Your task to perform on an android device: check the backup settings in the google photos Image 0: 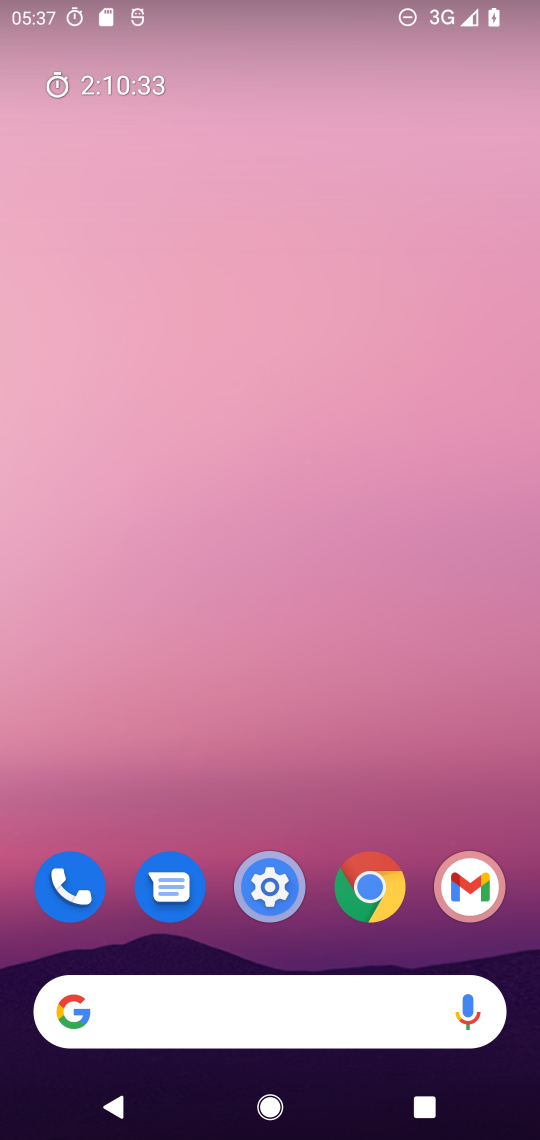
Step 0: press home button
Your task to perform on an android device: check the backup settings in the google photos Image 1: 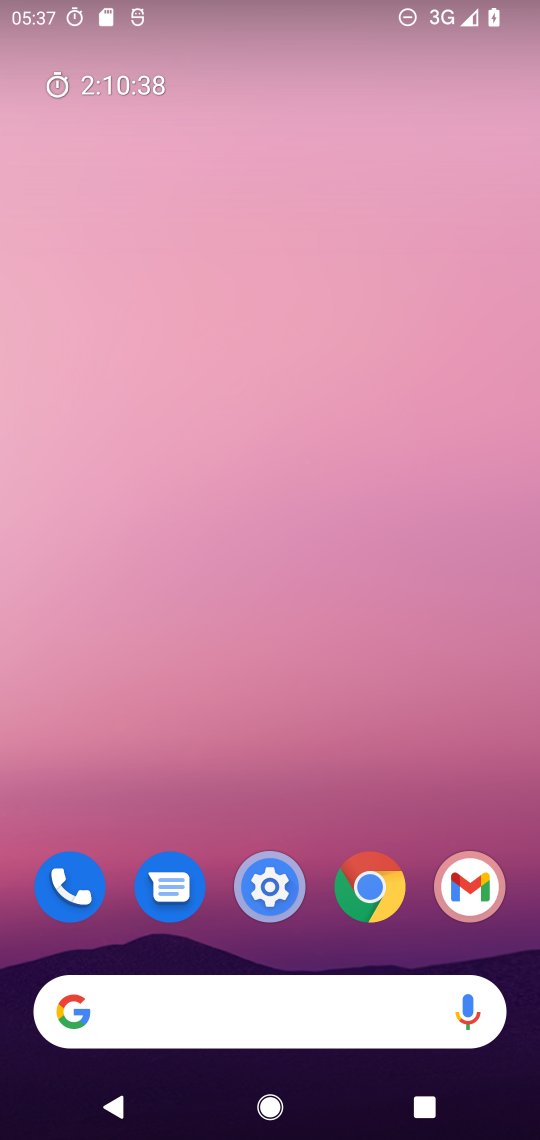
Step 1: drag from (414, 799) to (461, 309)
Your task to perform on an android device: check the backup settings in the google photos Image 2: 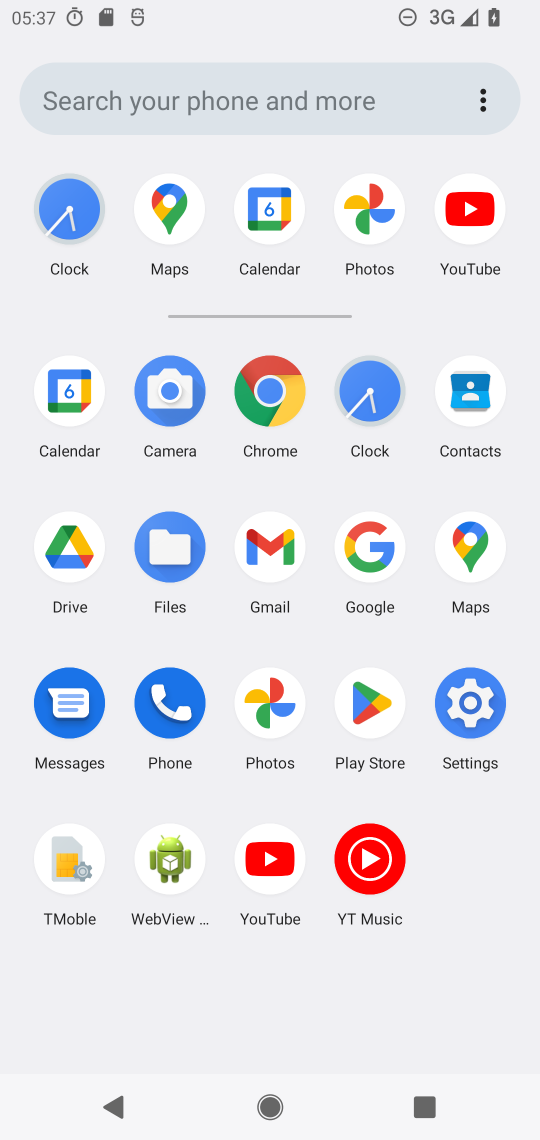
Step 2: click (260, 714)
Your task to perform on an android device: check the backup settings in the google photos Image 3: 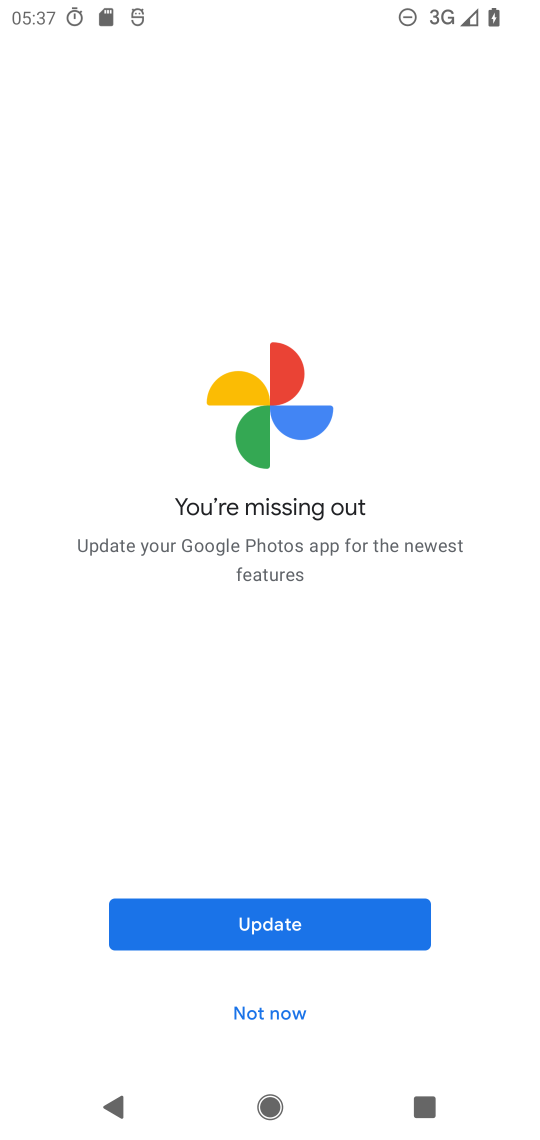
Step 3: click (269, 1009)
Your task to perform on an android device: check the backup settings in the google photos Image 4: 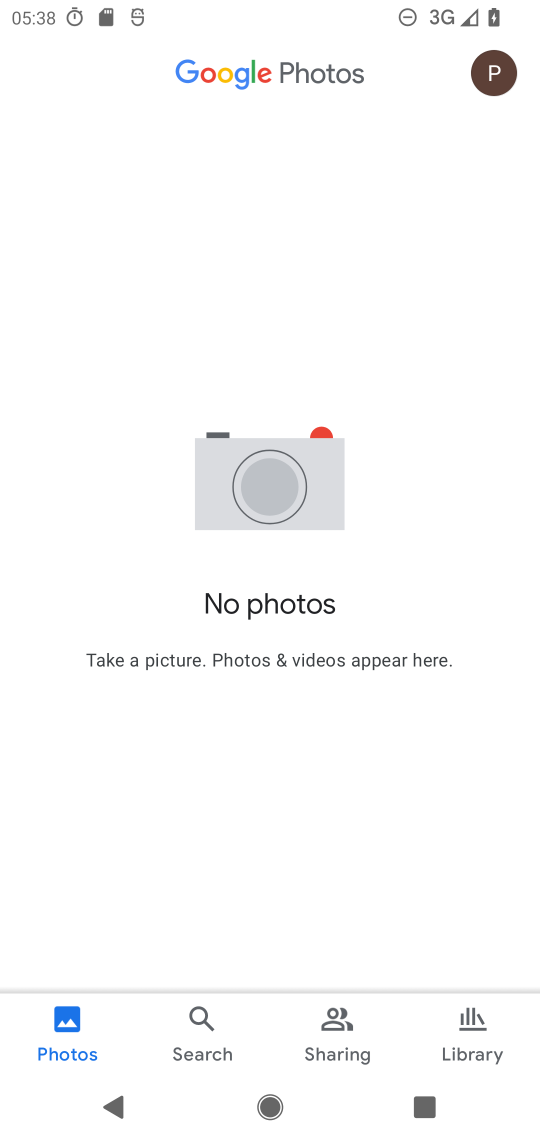
Step 4: click (491, 64)
Your task to perform on an android device: check the backup settings in the google photos Image 5: 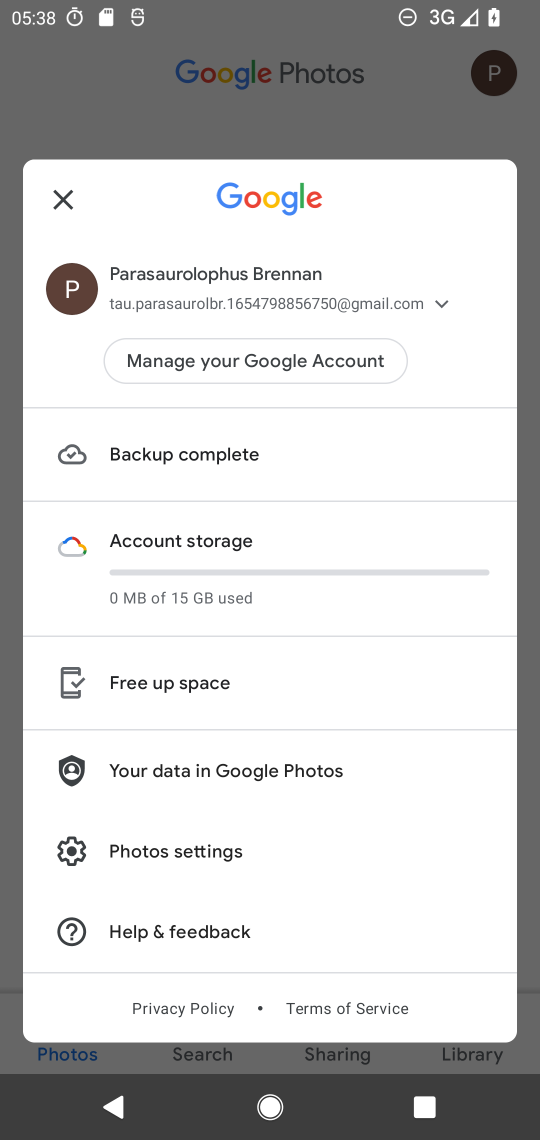
Step 5: click (225, 847)
Your task to perform on an android device: check the backup settings in the google photos Image 6: 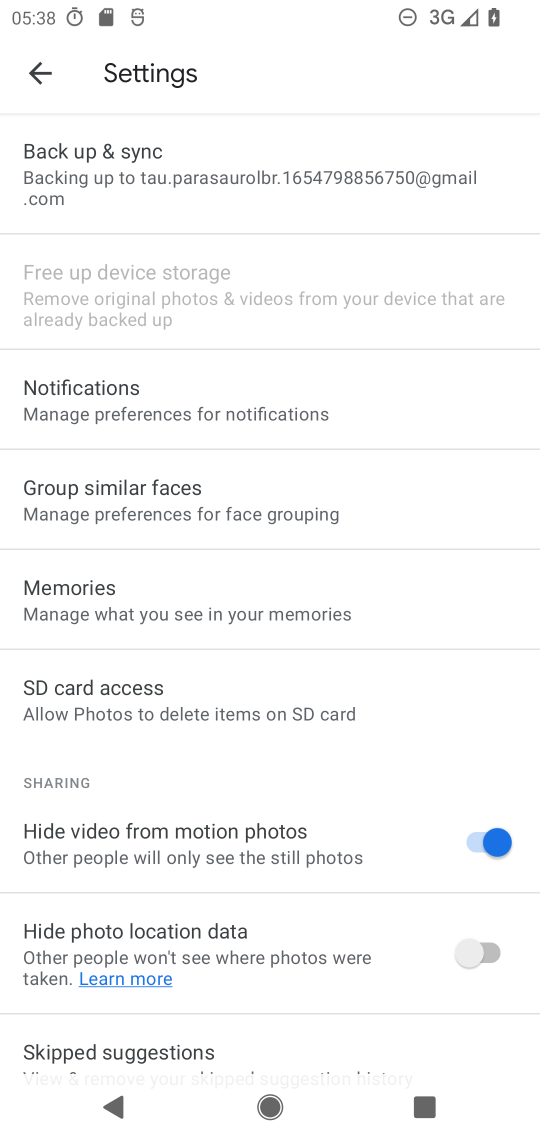
Step 6: click (243, 160)
Your task to perform on an android device: check the backup settings in the google photos Image 7: 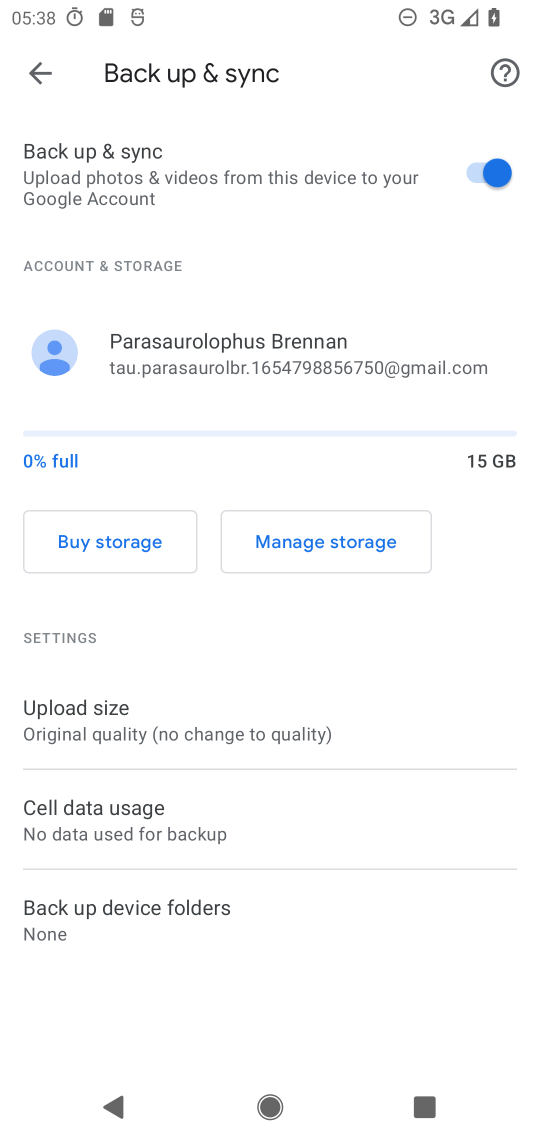
Step 7: task complete